Your task to perform on an android device: toggle javascript in the chrome app Image 0: 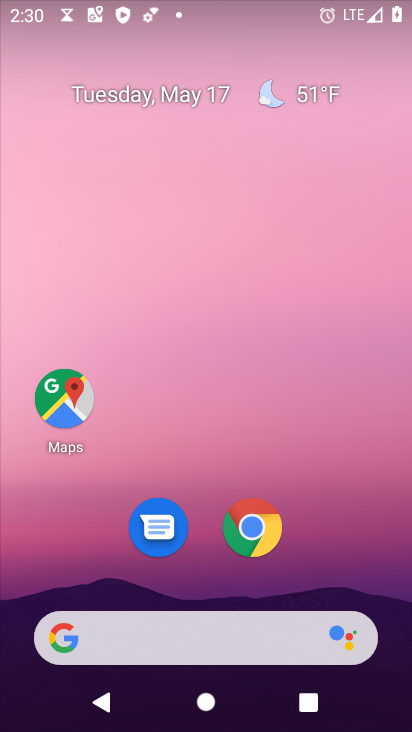
Step 0: click (251, 529)
Your task to perform on an android device: toggle javascript in the chrome app Image 1: 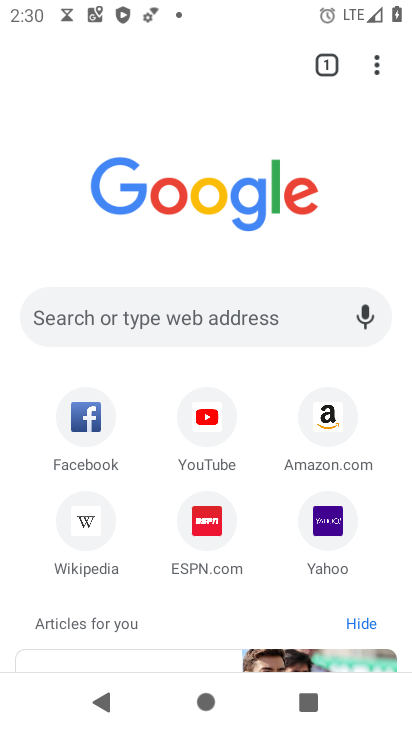
Step 1: click (375, 67)
Your task to perform on an android device: toggle javascript in the chrome app Image 2: 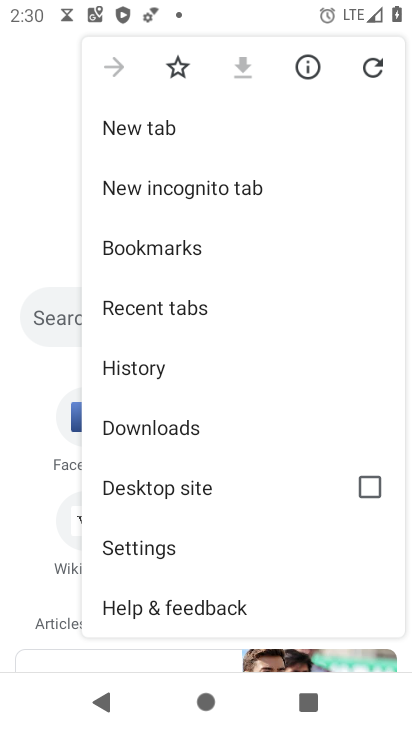
Step 2: drag from (164, 400) to (208, 315)
Your task to perform on an android device: toggle javascript in the chrome app Image 3: 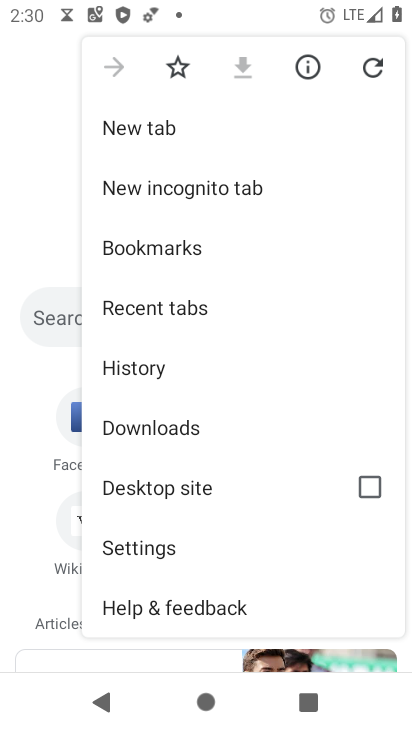
Step 3: click (164, 544)
Your task to perform on an android device: toggle javascript in the chrome app Image 4: 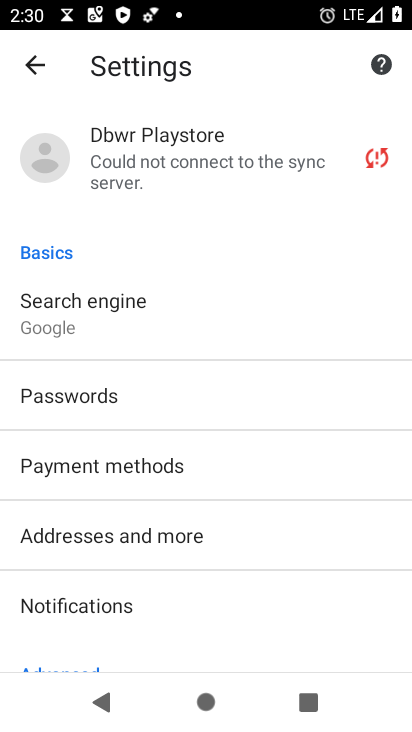
Step 4: drag from (176, 403) to (201, 302)
Your task to perform on an android device: toggle javascript in the chrome app Image 5: 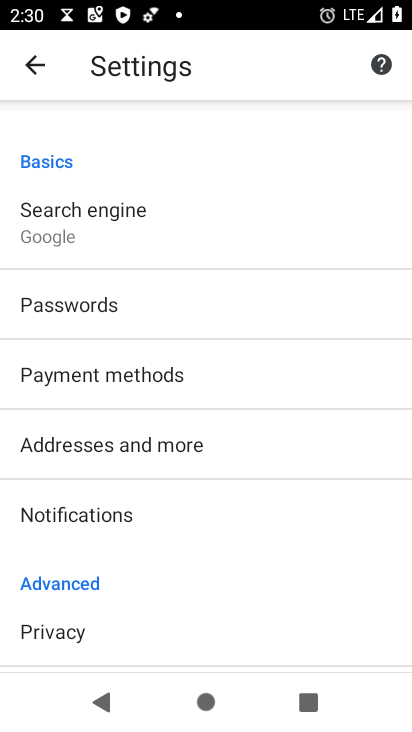
Step 5: drag from (125, 415) to (192, 332)
Your task to perform on an android device: toggle javascript in the chrome app Image 6: 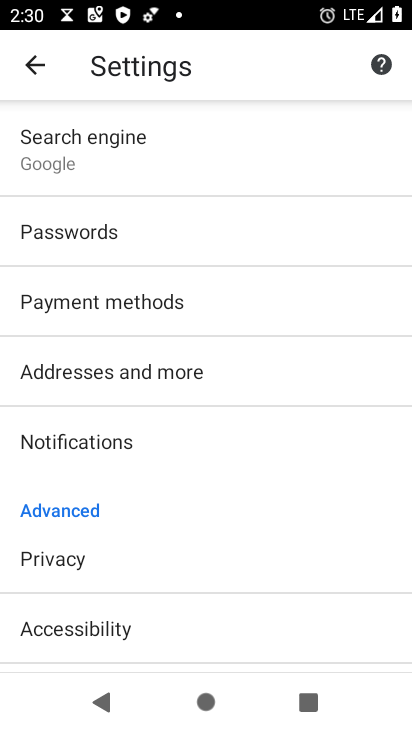
Step 6: drag from (125, 507) to (186, 416)
Your task to perform on an android device: toggle javascript in the chrome app Image 7: 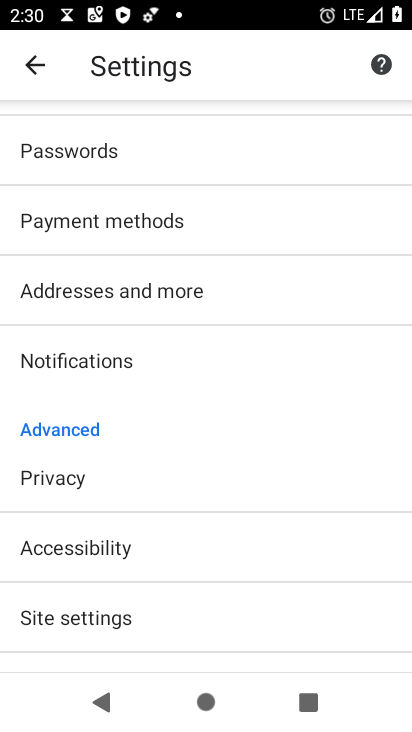
Step 7: drag from (114, 494) to (171, 409)
Your task to perform on an android device: toggle javascript in the chrome app Image 8: 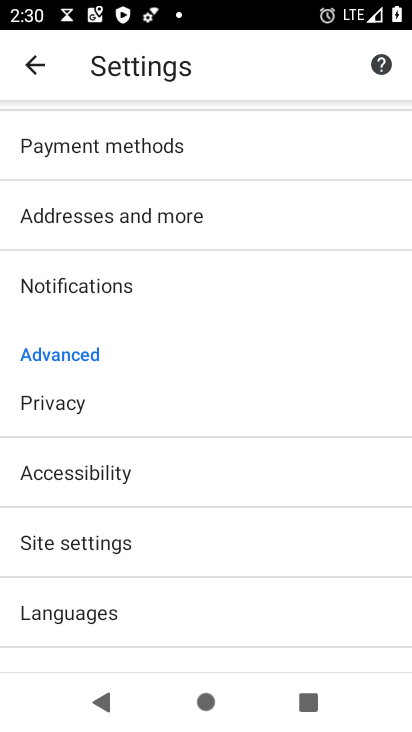
Step 8: click (83, 543)
Your task to perform on an android device: toggle javascript in the chrome app Image 9: 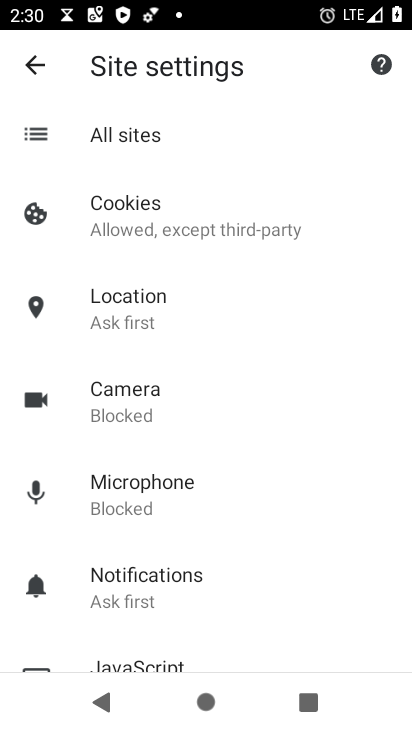
Step 9: drag from (126, 442) to (171, 375)
Your task to perform on an android device: toggle javascript in the chrome app Image 10: 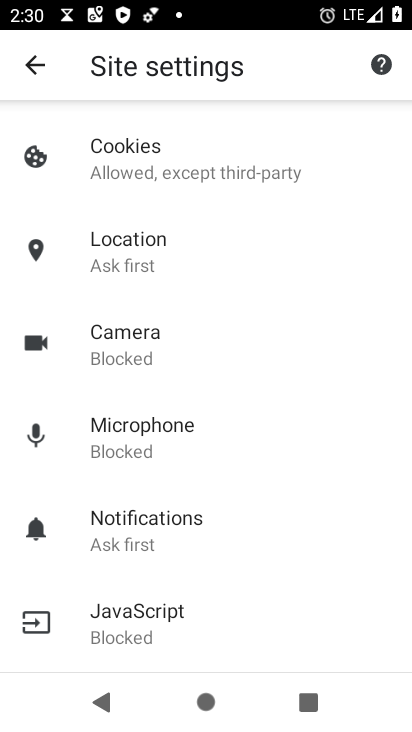
Step 10: drag from (123, 477) to (200, 377)
Your task to perform on an android device: toggle javascript in the chrome app Image 11: 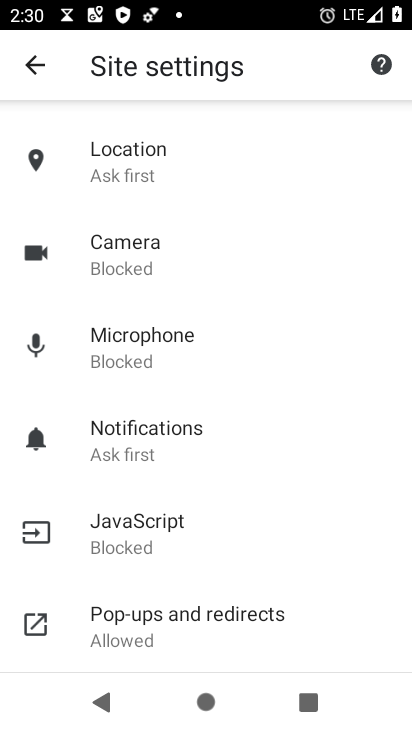
Step 11: click (154, 516)
Your task to perform on an android device: toggle javascript in the chrome app Image 12: 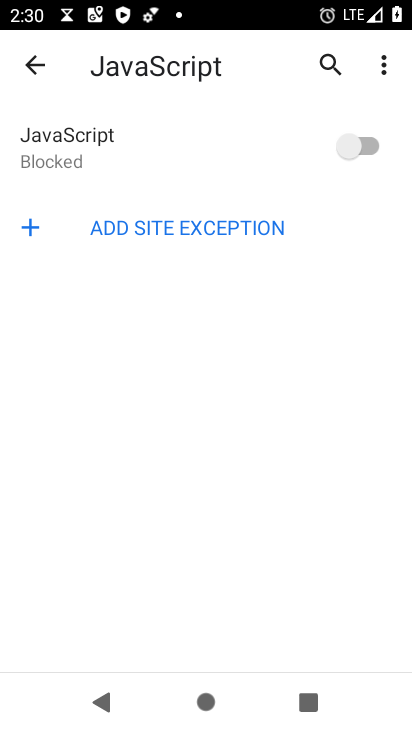
Step 12: click (354, 152)
Your task to perform on an android device: toggle javascript in the chrome app Image 13: 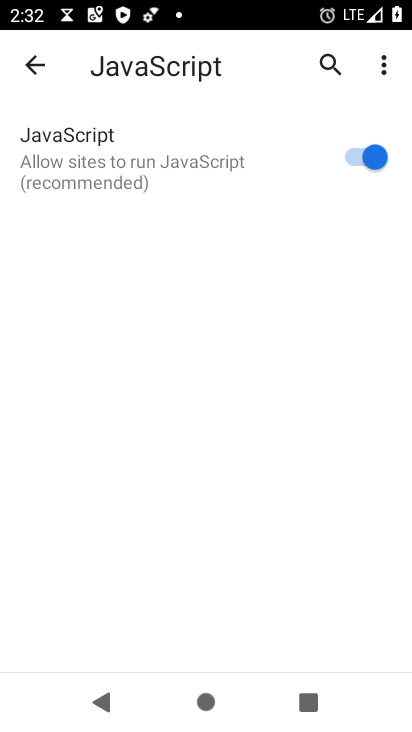
Step 13: task complete